Your task to perform on an android device: turn on notifications settings in the gmail app Image 0: 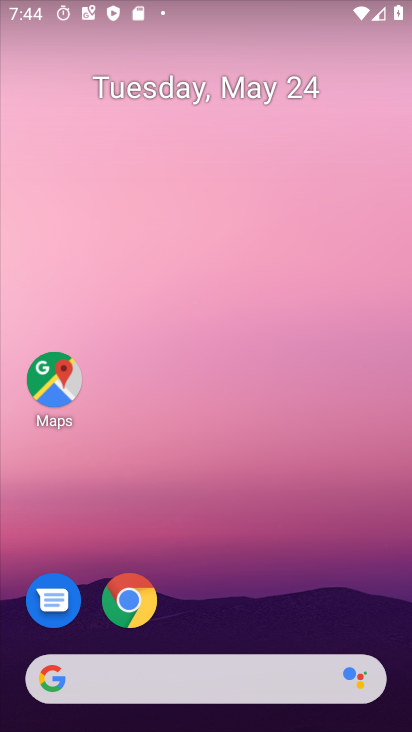
Step 0: drag from (254, 500) to (285, 98)
Your task to perform on an android device: turn on notifications settings in the gmail app Image 1: 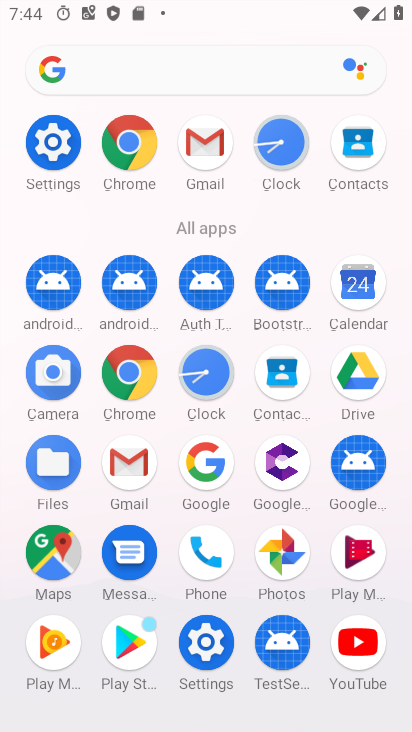
Step 1: click (201, 138)
Your task to perform on an android device: turn on notifications settings in the gmail app Image 2: 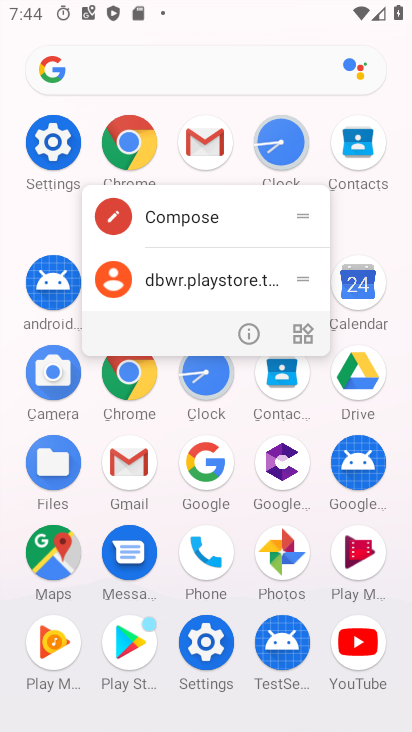
Step 2: click (251, 337)
Your task to perform on an android device: turn on notifications settings in the gmail app Image 3: 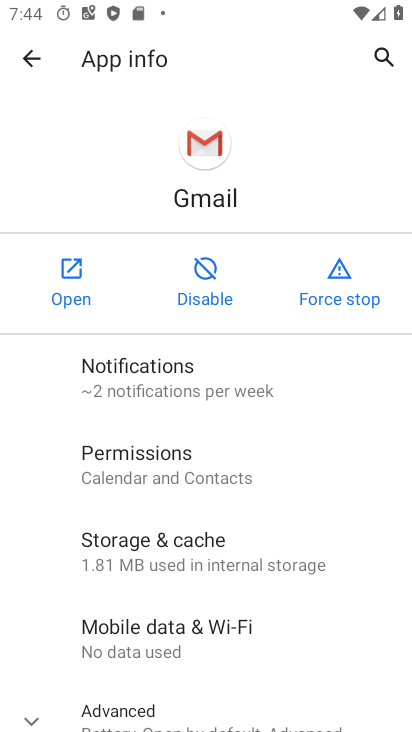
Step 3: click (174, 372)
Your task to perform on an android device: turn on notifications settings in the gmail app Image 4: 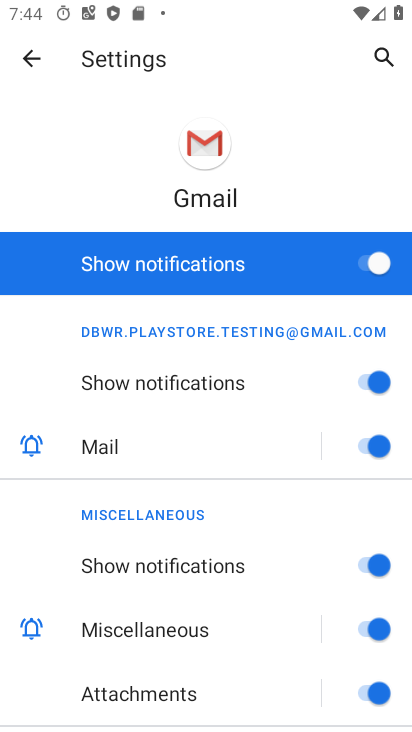
Step 4: task complete